Your task to perform on an android device: visit the assistant section in the google photos Image 0: 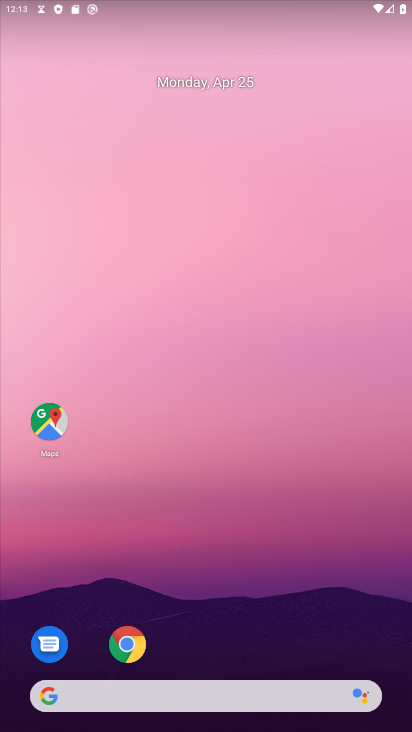
Step 0: drag from (350, 643) to (396, 2)
Your task to perform on an android device: visit the assistant section in the google photos Image 1: 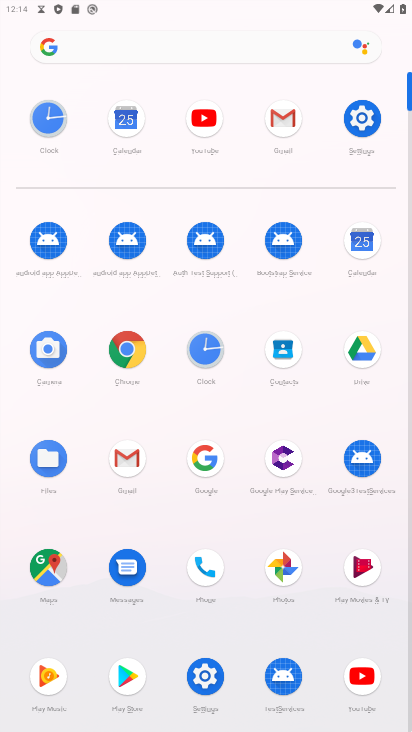
Step 1: click (286, 574)
Your task to perform on an android device: visit the assistant section in the google photos Image 2: 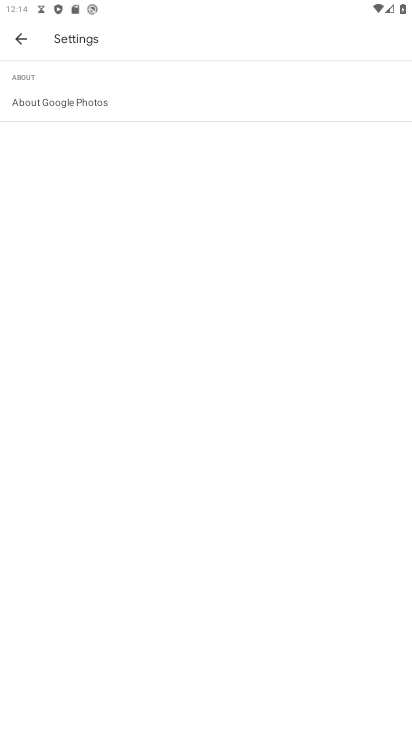
Step 2: click (24, 46)
Your task to perform on an android device: visit the assistant section in the google photos Image 3: 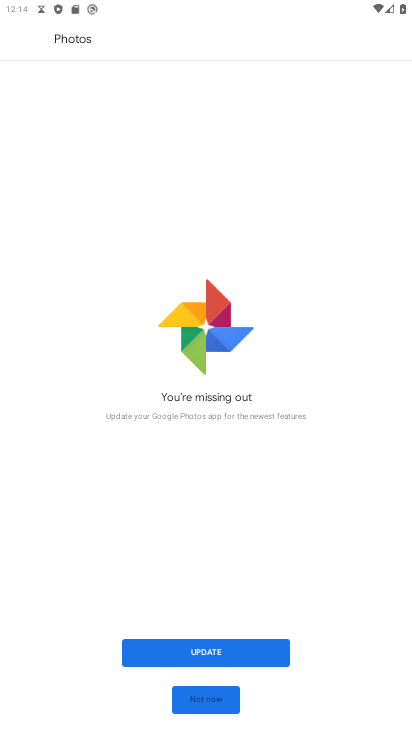
Step 3: click (207, 716)
Your task to perform on an android device: visit the assistant section in the google photos Image 4: 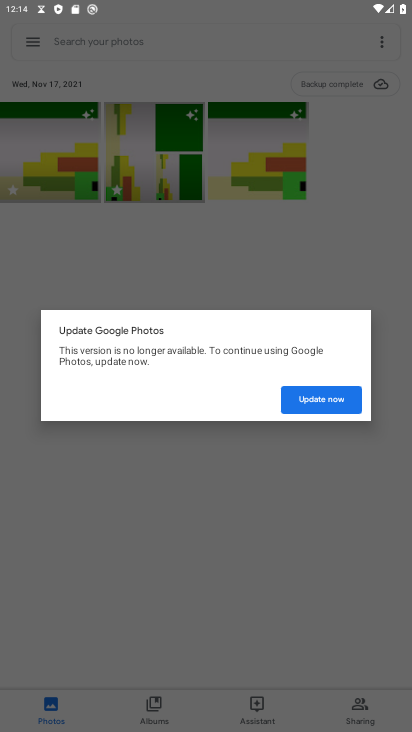
Step 4: click (324, 395)
Your task to perform on an android device: visit the assistant section in the google photos Image 5: 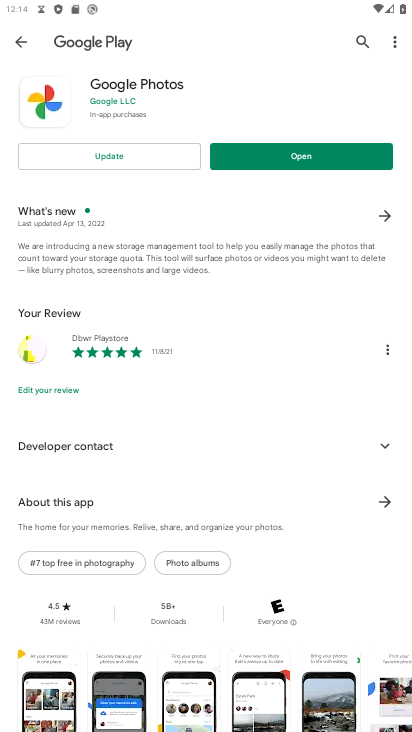
Step 5: click (305, 159)
Your task to perform on an android device: visit the assistant section in the google photos Image 6: 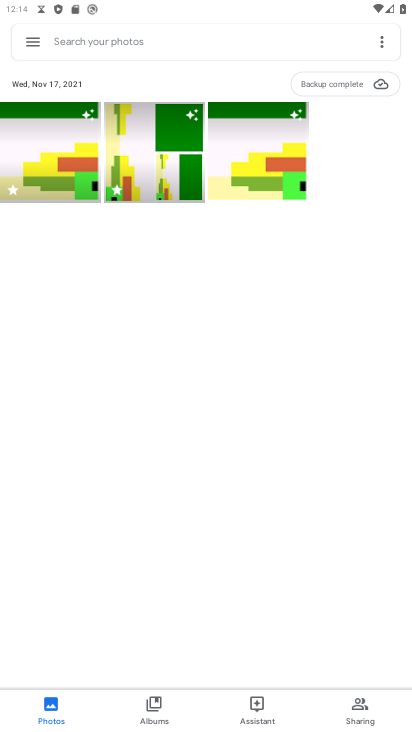
Step 6: click (260, 719)
Your task to perform on an android device: visit the assistant section in the google photos Image 7: 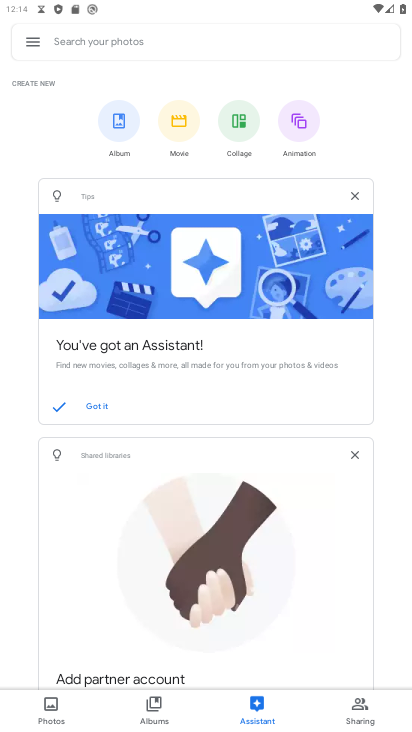
Step 7: task complete